Your task to perform on an android device: Open Google Maps and go to "Timeline" Image 0: 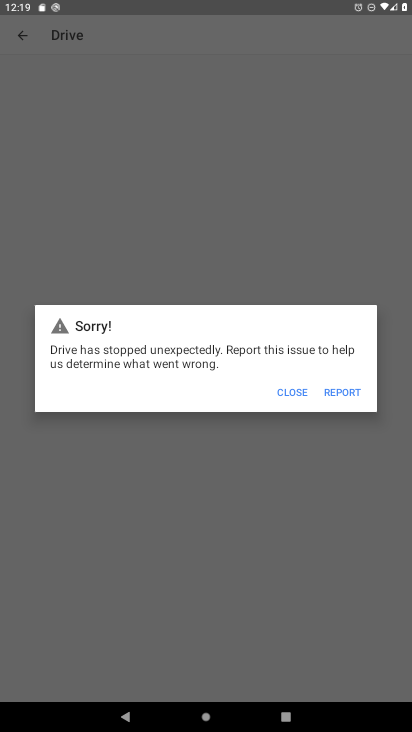
Step 0: press home button
Your task to perform on an android device: Open Google Maps and go to "Timeline" Image 1: 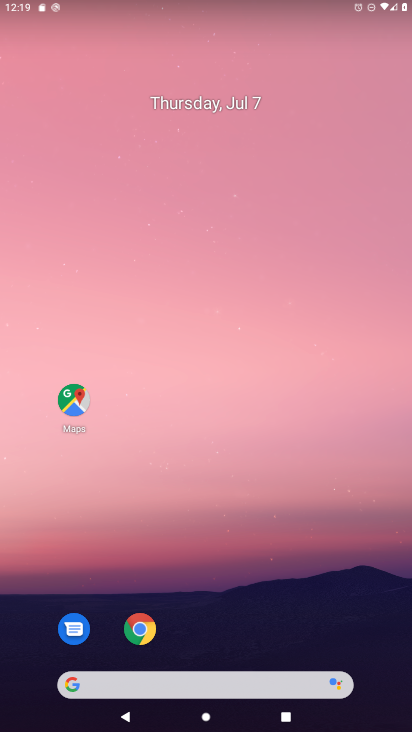
Step 1: click (71, 426)
Your task to perform on an android device: Open Google Maps and go to "Timeline" Image 2: 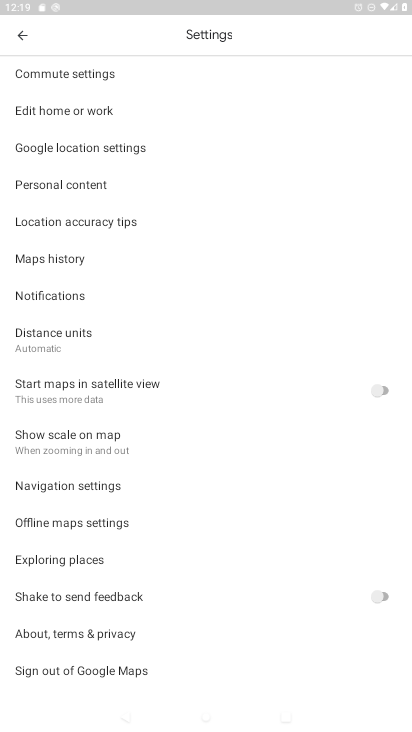
Step 2: click (26, 33)
Your task to perform on an android device: Open Google Maps and go to "Timeline" Image 3: 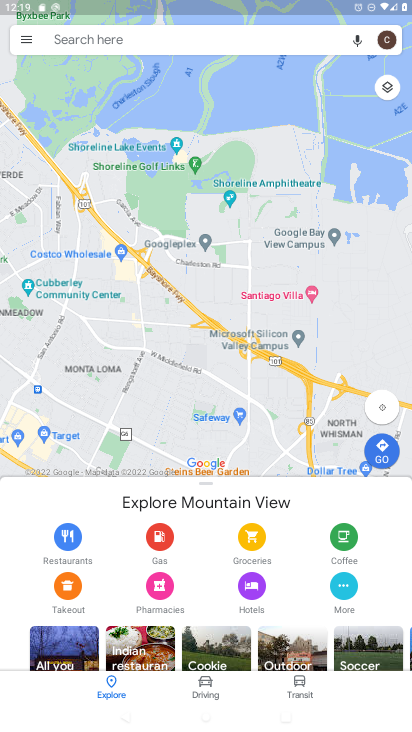
Step 3: click (34, 36)
Your task to perform on an android device: Open Google Maps and go to "Timeline" Image 4: 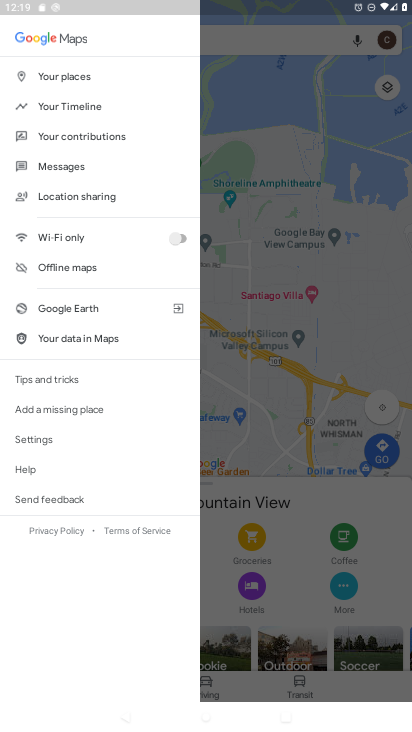
Step 4: click (90, 107)
Your task to perform on an android device: Open Google Maps and go to "Timeline" Image 5: 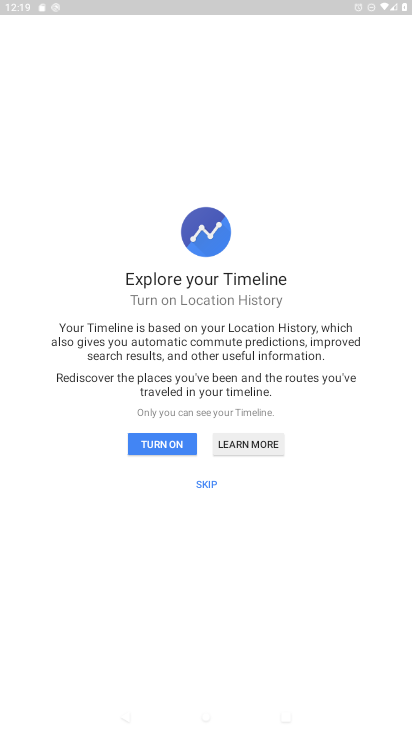
Step 5: click (176, 440)
Your task to perform on an android device: Open Google Maps and go to "Timeline" Image 6: 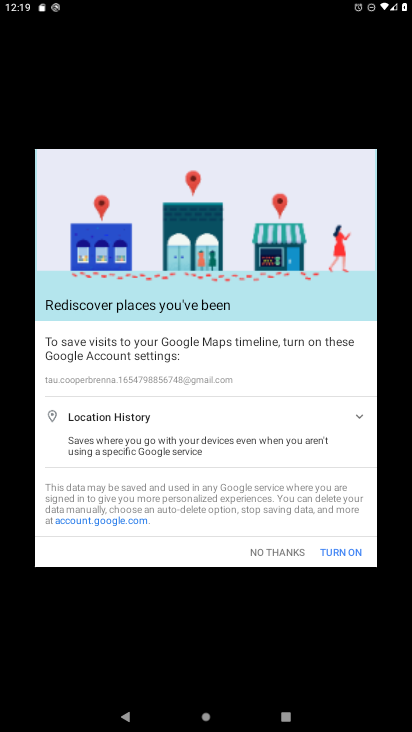
Step 6: click (333, 553)
Your task to perform on an android device: Open Google Maps and go to "Timeline" Image 7: 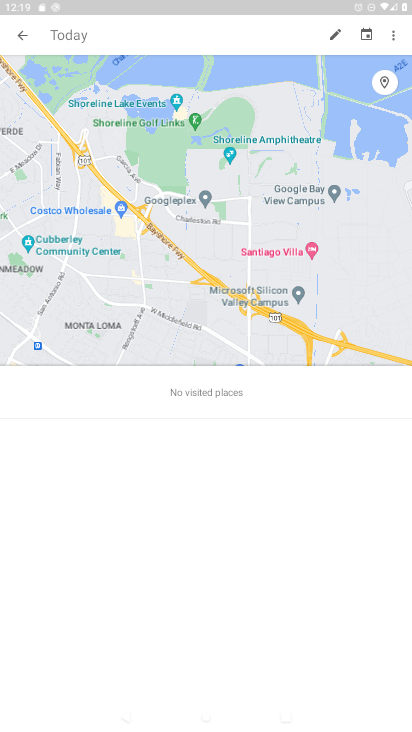
Step 7: task complete